Your task to perform on an android device: delete a single message in the gmail app Image 0: 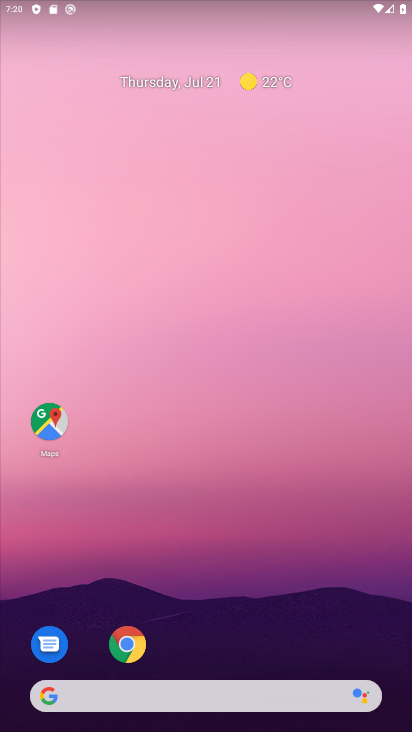
Step 0: drag from (368, 574) to (391, 105)
Your task to perform on an android device: delete a single message in the gmail app Image 1: 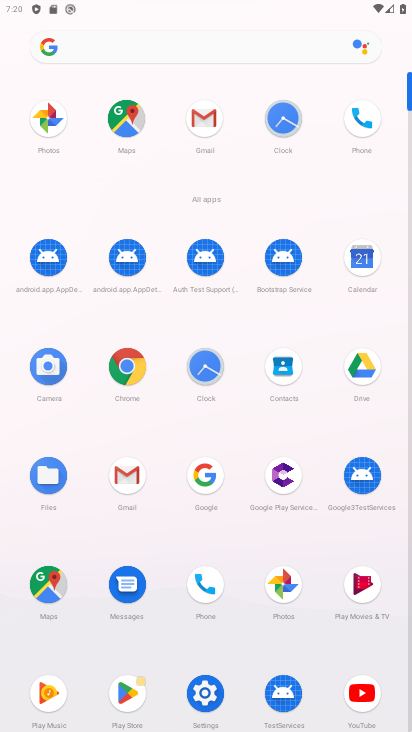
Step 1: click (128, 471)
Your task to perform on an android device: delete a single message in the gmail app Image 2: 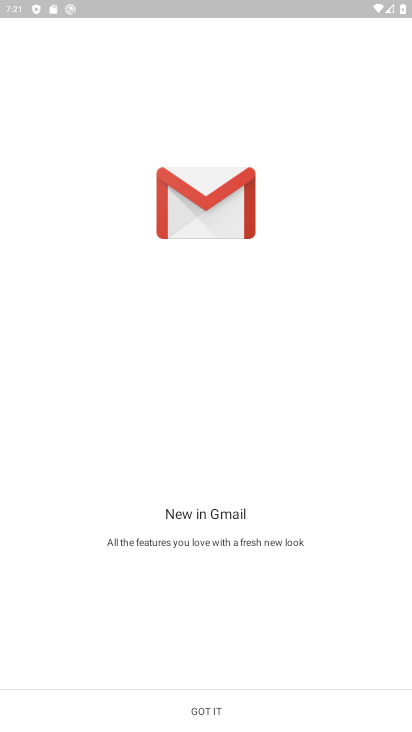
Step 2: click (210, 702)
Your task to perform on an android device: delete a single message in the gmail app Image 3: 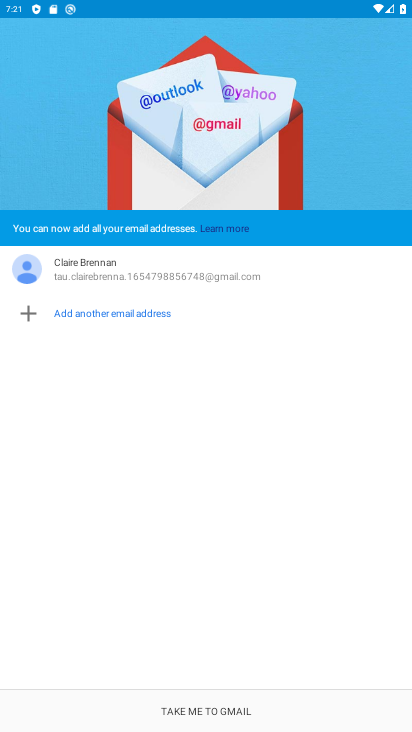
Step 3: click (210, 702)
Your task to perform on an android device: delete a single message in the gmail app Image 4: 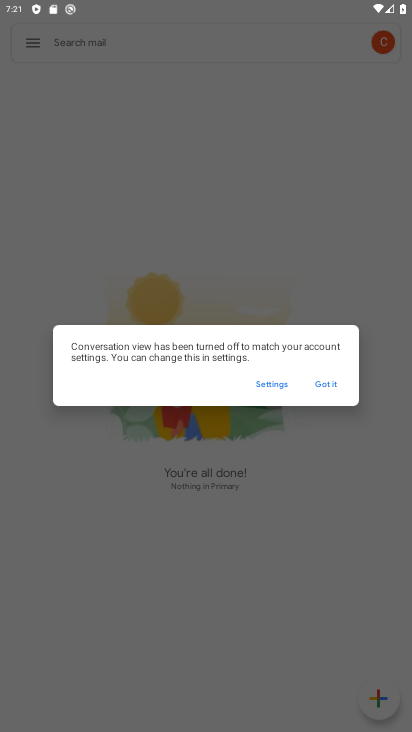
Step 4: click (318, 378)
Your task to perform on an android device: delete a single message in the gmail app Image 5: 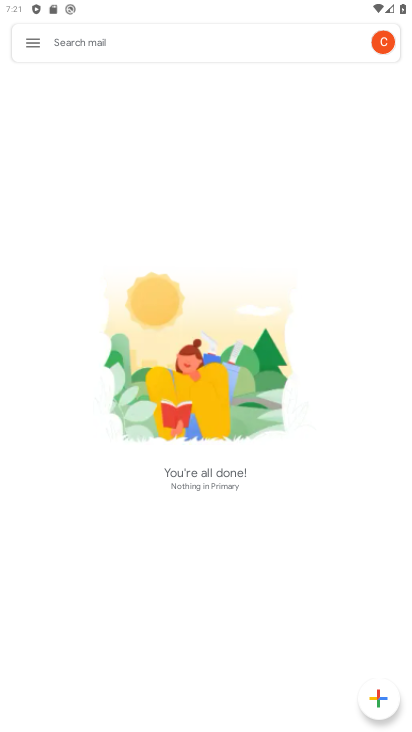
Step 5: click (31, 40)
Your task to perform on an android device: delete a single message in the gmail app Image 6: 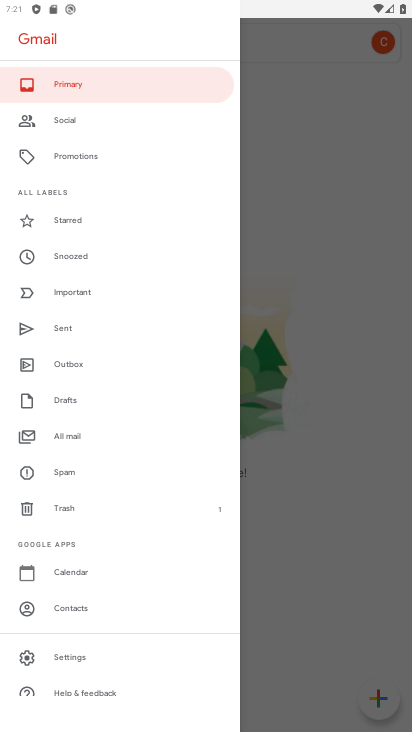
Step 6: click (82, 431)
Your task to perform on an android device: delete a single message in the gmail app Image 7: 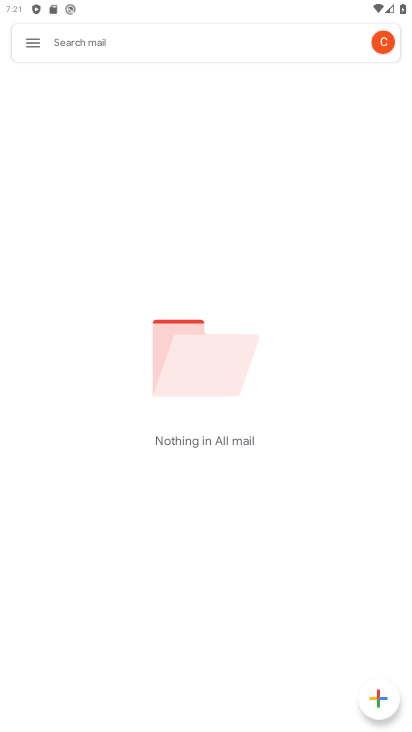
Step 7: task complete